Your task to perform on an android device: Do I have any events tomorrow? Image 0: 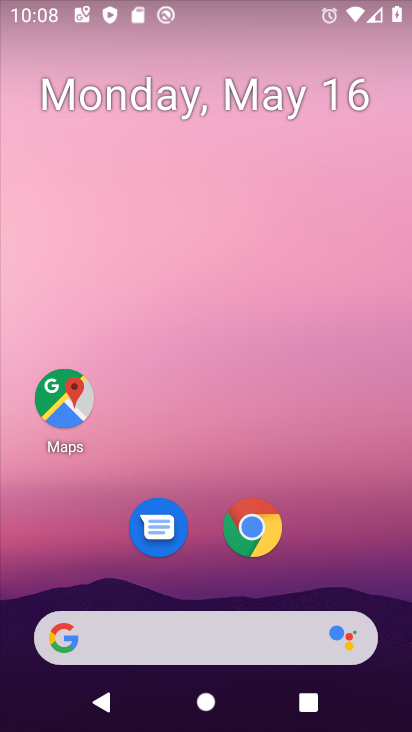
Step 0: drag from (366, 602) to (367, 38)
Your task to perform on an android device: Do I have any events tomorrow? Image 1: 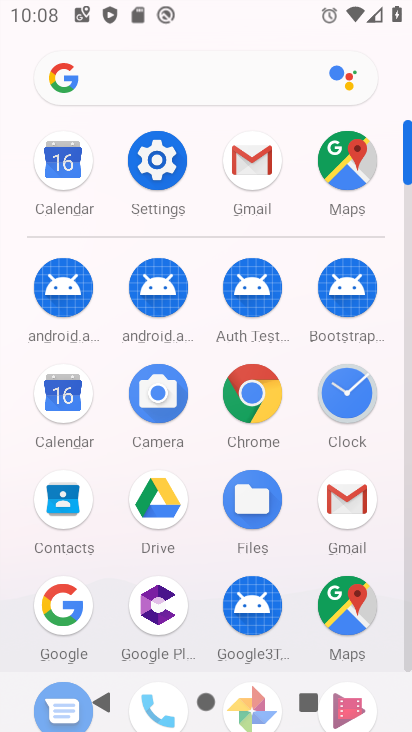
Step 1: click (68, 161)
Your task to perform on an android device: Do I have any events tomorrow? Image 2: 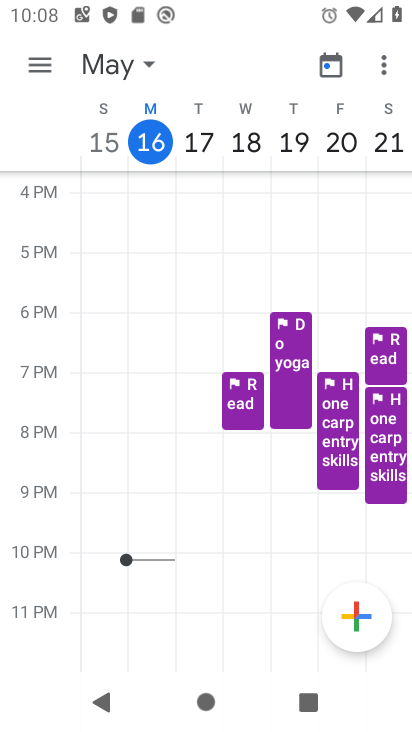
Step 2: click (46, 69)
Your task to perform on an android device: Do I have any events tomorrow? Image 3: 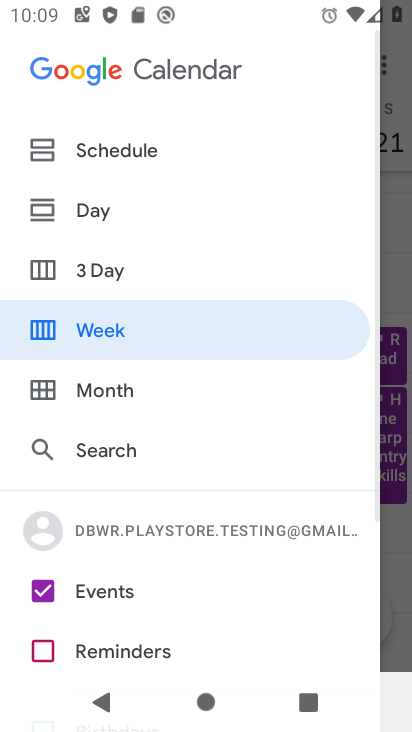
Step 3: click (73, 141)
Your task to perform on an android device: Do I have any events tomorrow? Image 4: 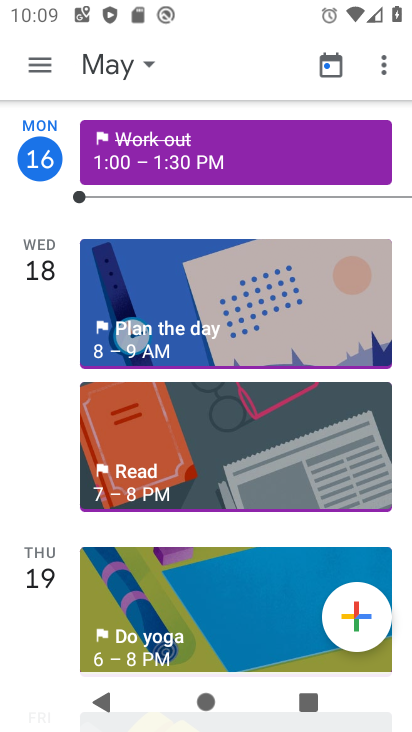
Step 4: click (139, 66)
Your task to perform on an android device: Do I have any events tomorrow? Image 5: 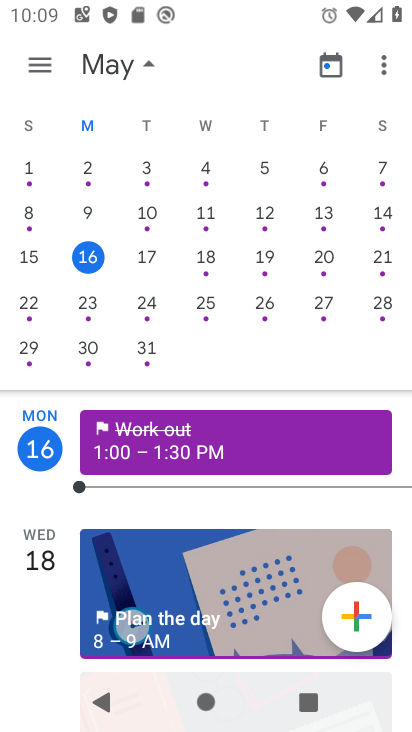
Step 5: click (147, 259)
Your task to perform on an android device: Do I have any events tomorrow? Image 6: 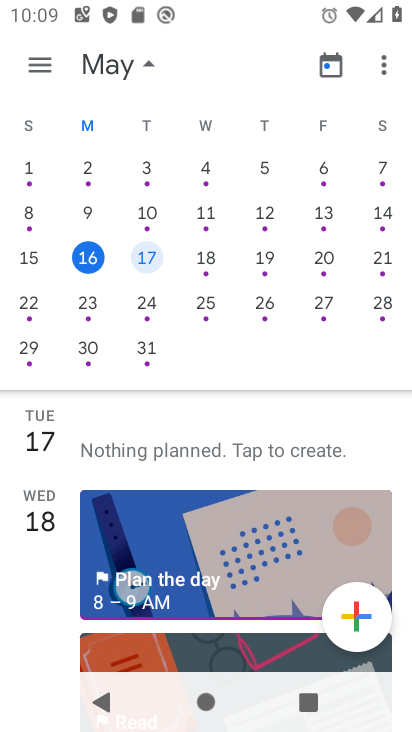
Step 6: click (168, 454)
Your task to perform on an android device: Do I have any events tomorrow? Image 7: 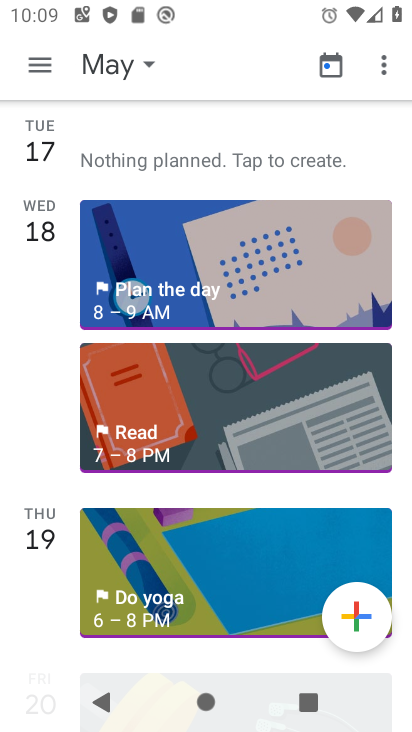
Step 7: click (194, 158)
Your task to perform on an android device: Do I have any events tomorrow? Image 8: 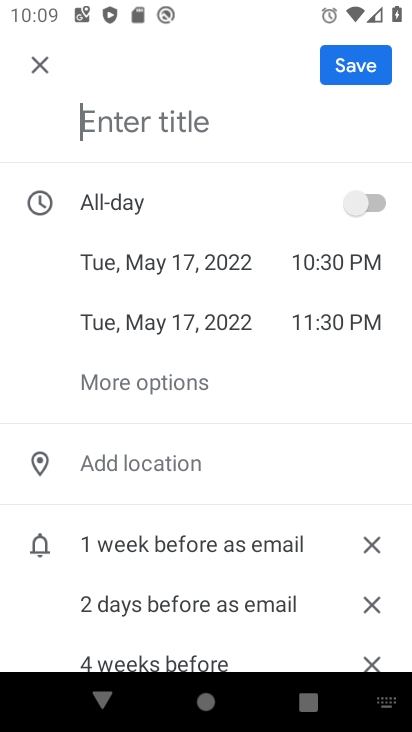
Step 8: task complete